Your task to perform on an android device: turn on wifi Image 0: 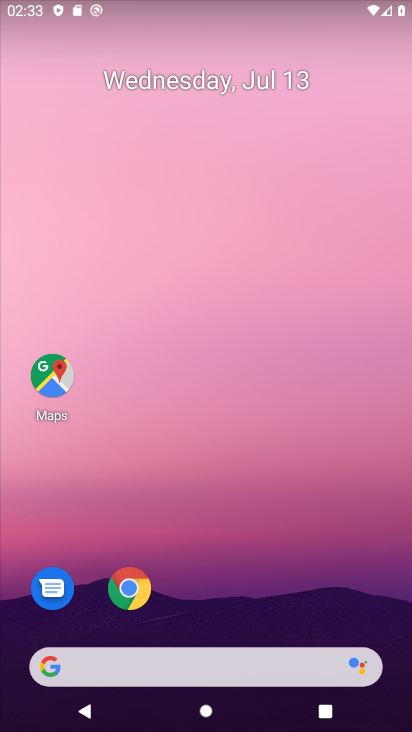
Step 0: drag from (253, 535) to (234, 46)
Your task to perform on an android device: turn on wifi Image 1: 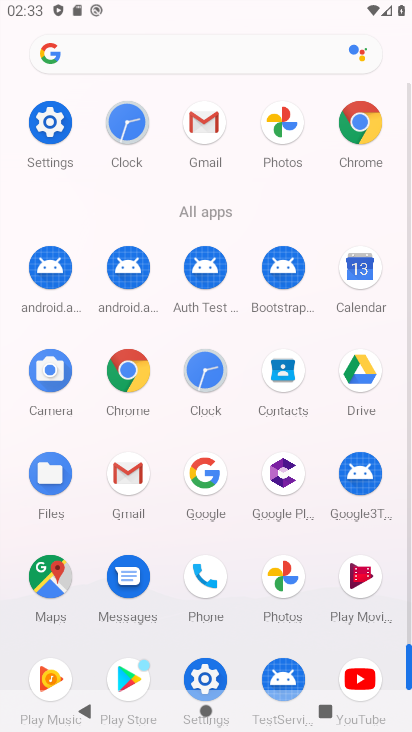
Step 1: click (45, 126)
Your task to perform on an android device: turn on wifi Image 2: 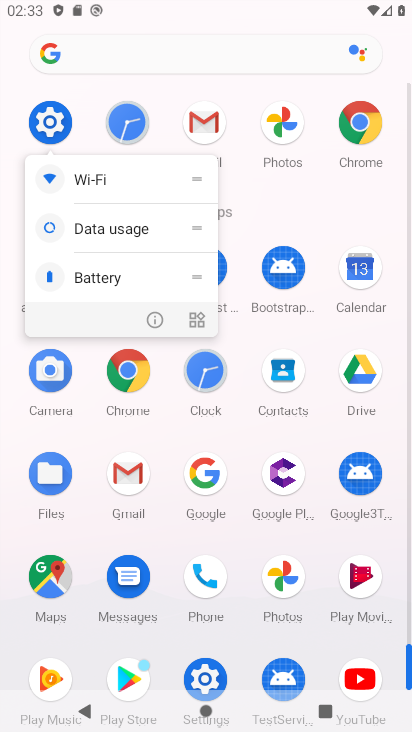
Step 2: click (45, 126)
Your task to perform on an android device: turn on wifi Image 3: 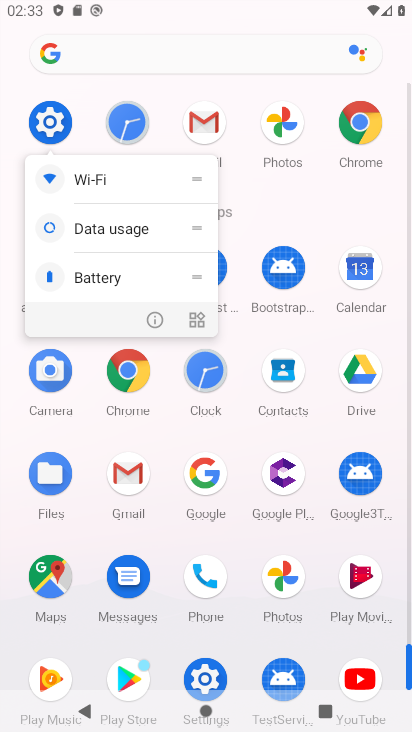
Step 3: click (45, 126)
Your task to perform on an android device: turn on wifi Image 4: 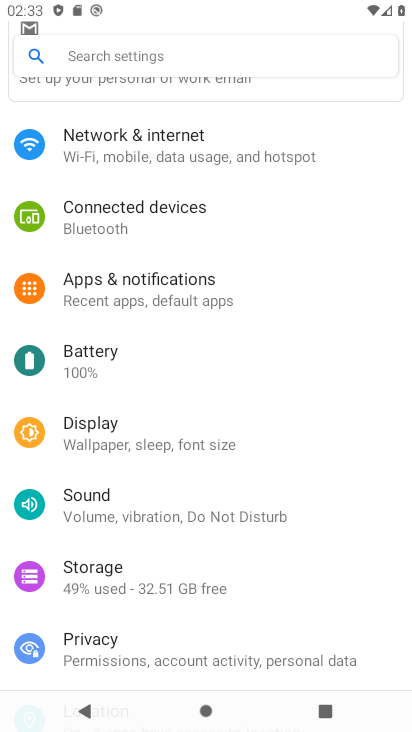
Step 4: drag from (259, 170) to (321, 600)
Your task to perform on an android device: turn on wifi Image 5: 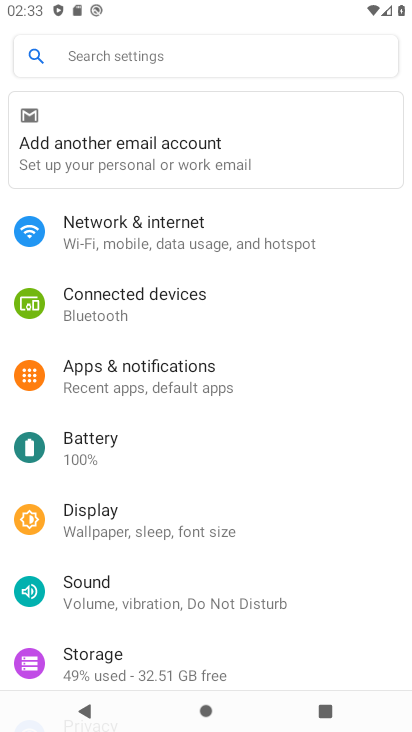
Step 5: click (179, 232)
Your task to perform on an android device: turn on wifi Image 6: 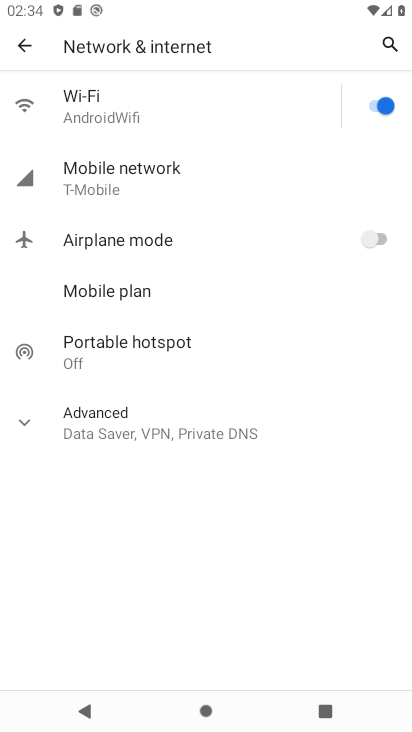
Step 6: task complete